Your task to perform on an android device: allow cookies in the chrome app Image 0: 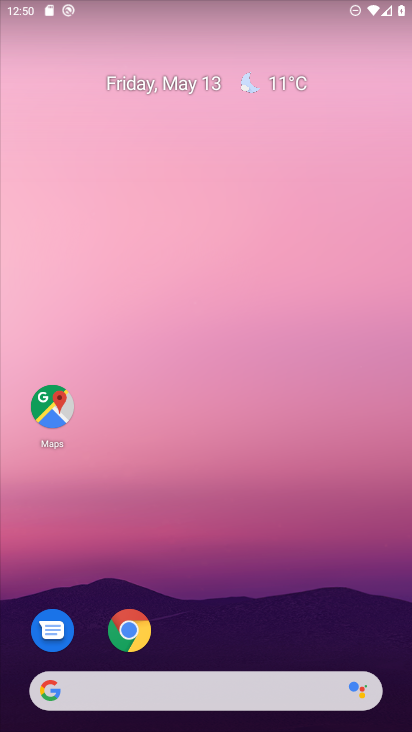
Step 0: click (128, 625)
Your task to perform on an android device: allow cookies in the chrome app Image 1: 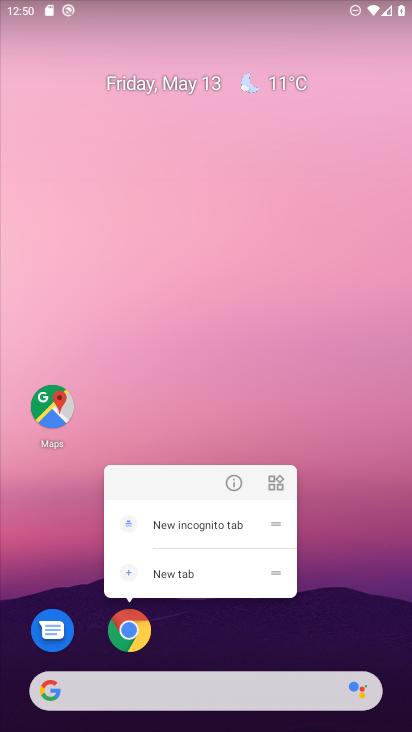
Step 1: click (126, 630)
Your task to perform on an android device: allow cookies in the chrome app Image 2: 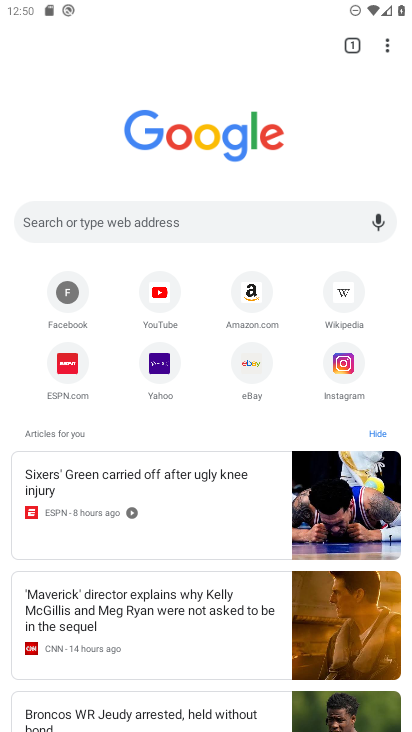
Step 2: drag from (391, 40) to (250, 385)
Your task to perform on an android device: allow cookies in the chrome app Image 3: 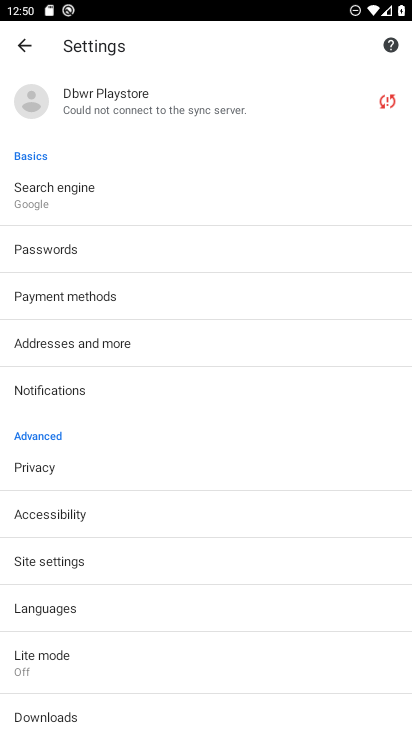
Step 3: click (139, 562)
Your task to perform on an android device: allow cookies in the chrome app Image 4: 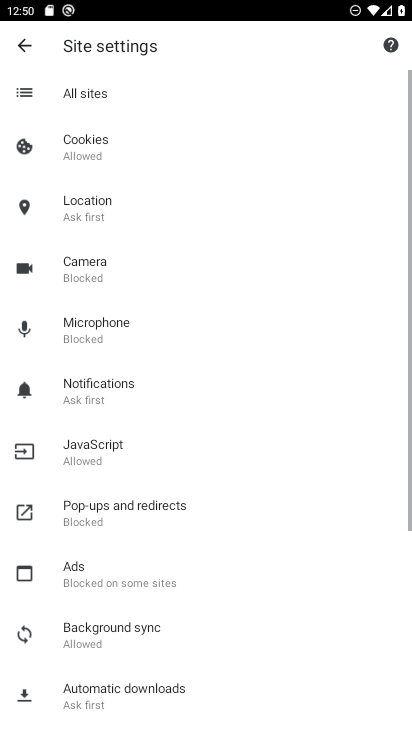
Step 4: click (149, 137)
Your task to perform on an android device: allow cookies in the chrome app Image 5: 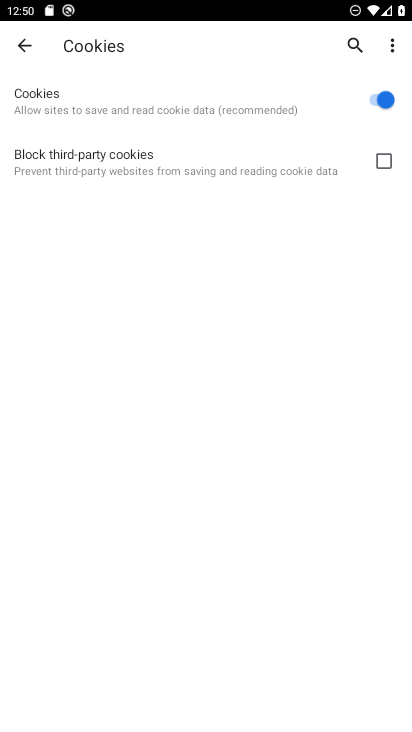
Step 5: task complete